Your task to perform on an android device: What's on my calendar tomorrow? Image 0: 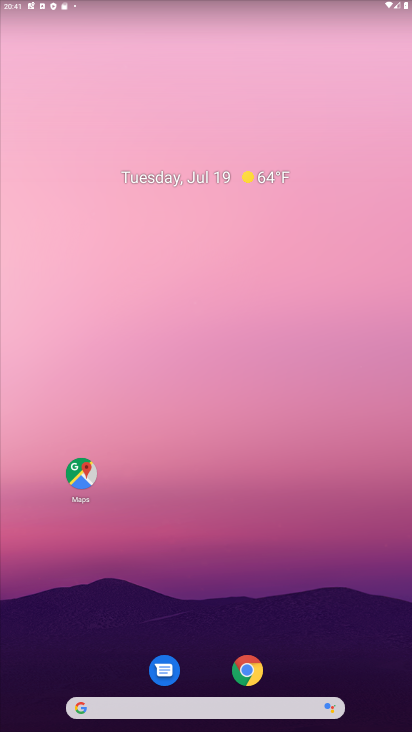
Step 0: drag from (109, 719) to (242, 15)
Your task to perform on an android device: What's on my calendar tomorrow? Image 1: 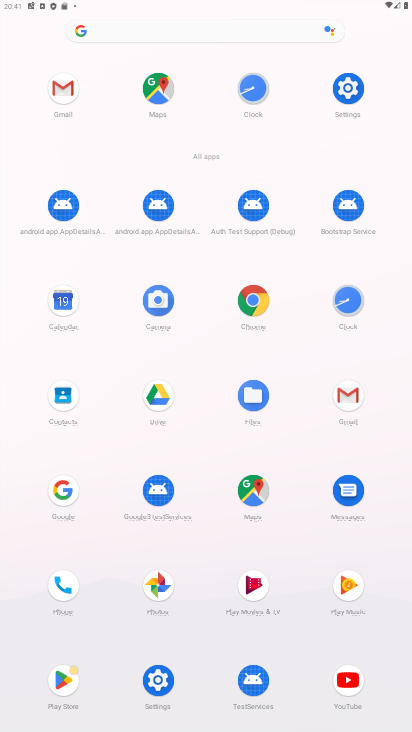
Step 1: click (65, 309)
Your task to perform on an android device: What's on my calendar tomorrow? Image 2: 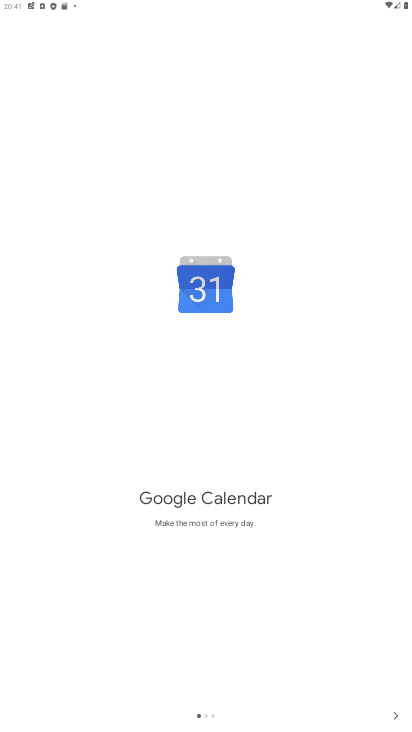
Step 2: click (394, 715)
Your task to perform on an android device: What's on my calendar tomorrow? Image 3: 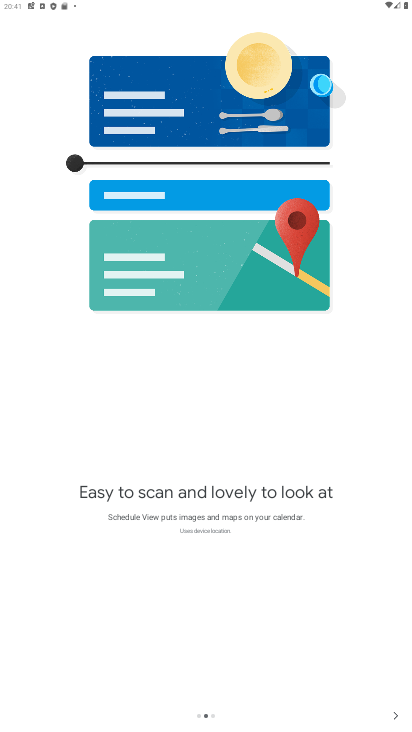
Step 3: click (394, 715)
Your task to perform on an android device: What's on my calendar tomorrow? Image 4: 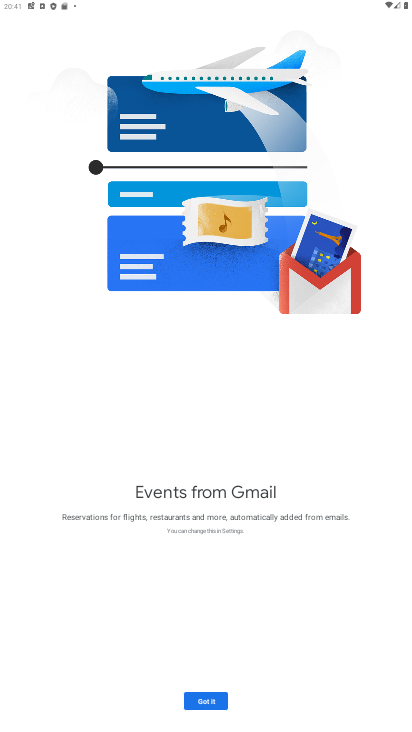
Step 4: click (211, 700)
Your task to perform on an android device: What's on my calendar tomorrow? Image 5: 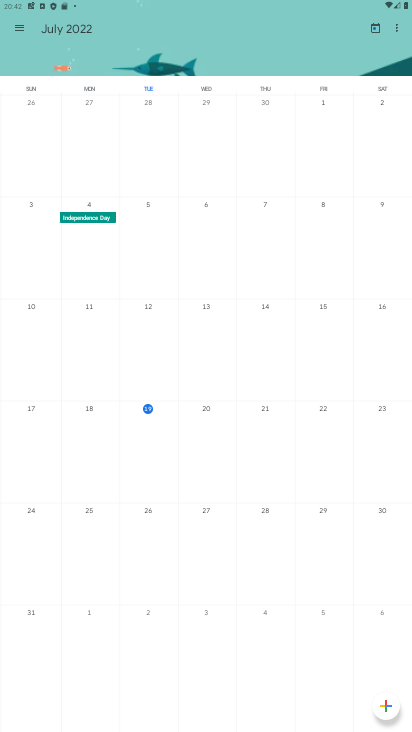
Step 5: click (214, 439)
Your task to perform on an android device: What's on my calendar tomorrow? Image 6: 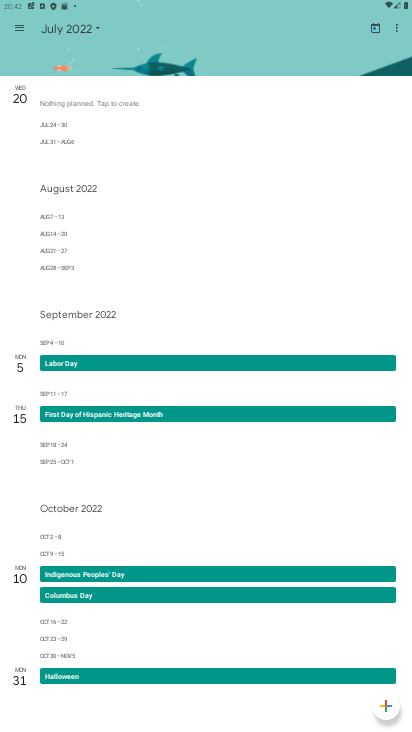
Step 6: task complete